Your task to perform on an android device: Open Chrome and go to settings Image 0: 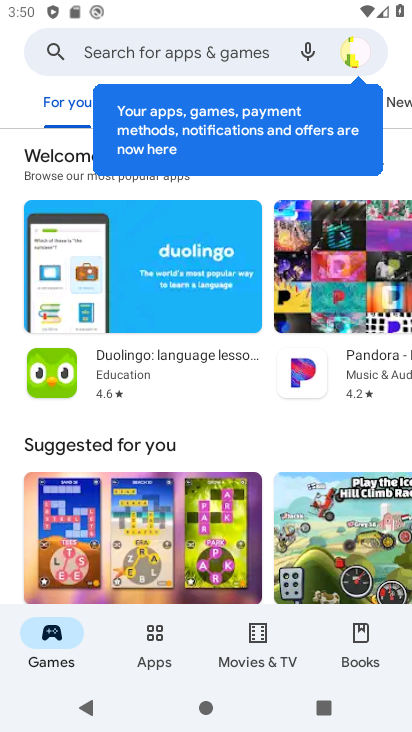
Step 0: press home button
Your task to perform on an android device: Open Chrome and go to settings Image 1: 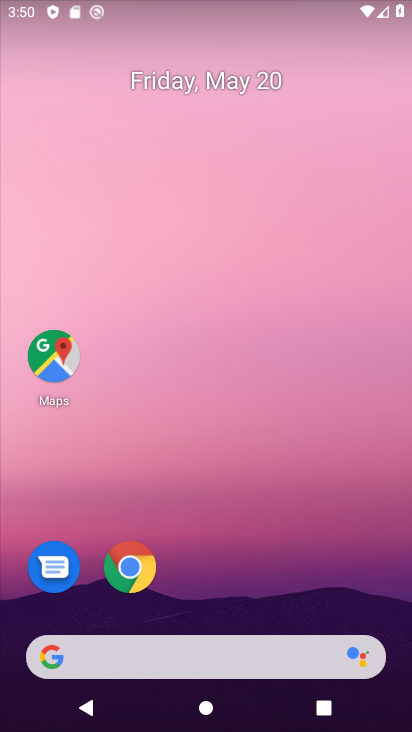
Step 1: click (129, 567)
Your task to perform on an android device: Open Chrome and go to settings Image 2: 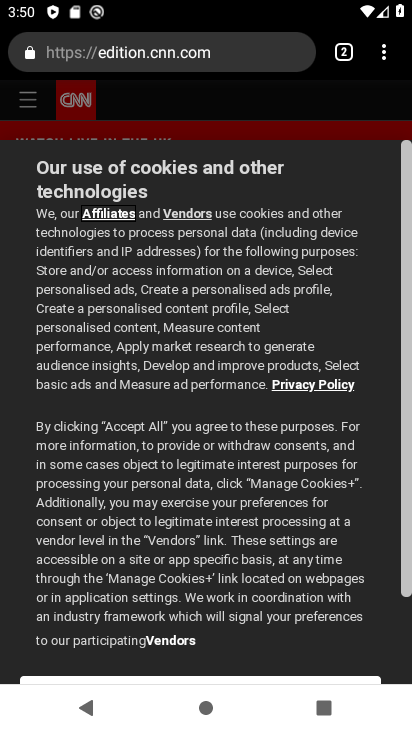
Step 2: click (397, 58)
Your task to perform on an android device: Open Chrome and go to settings Image 3: 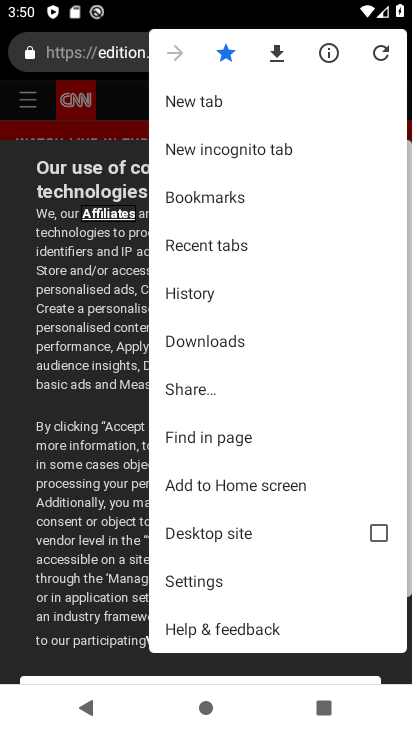
Step 3: click (214, 577)
Your task to perform on an android device: Open Chrome and go to settings Image 4: 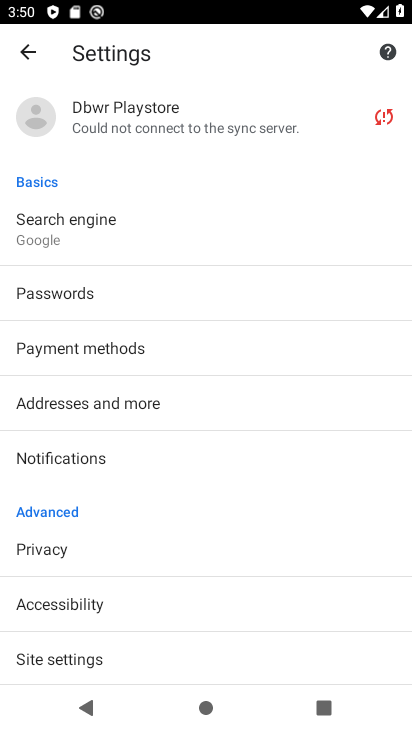
Step 4: task complete